Your task to perform on an android device: set the timer Image 0: 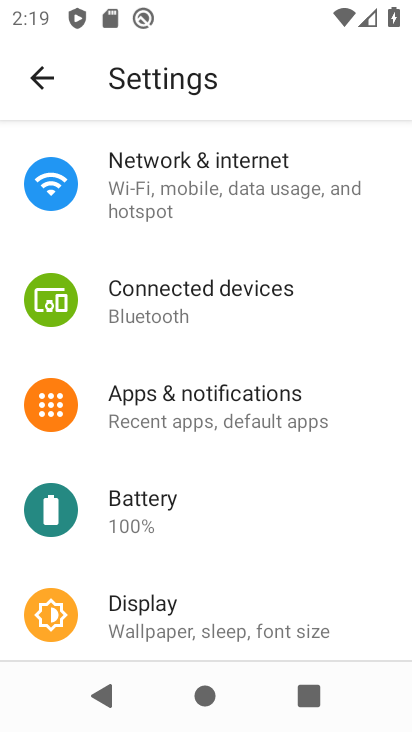
Step 0: press back button
Your task to perform on an android device: set the timer Image 1: 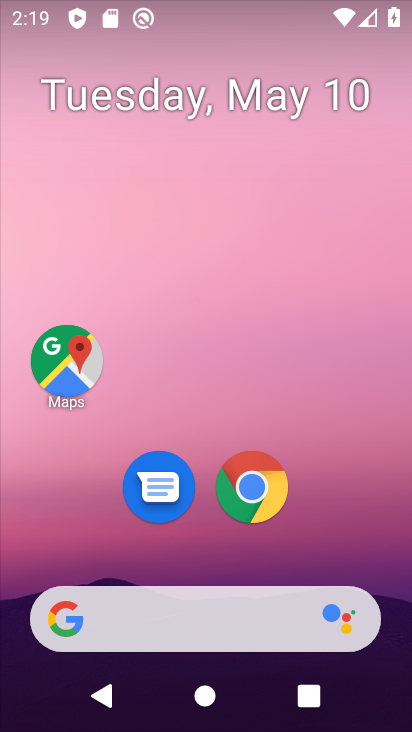
Step 1: drag from (175, 575) to (252, 131)
Your task to perform on an android device: set the timer Image 2: 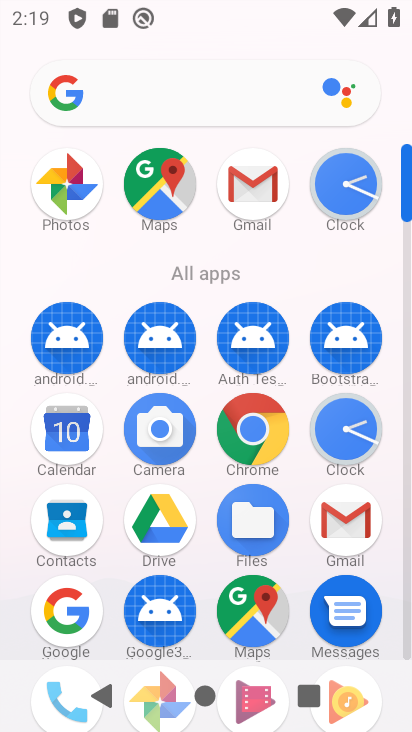
Step 2: click (348, 440)
Your task to perform on an android device: set the timer Image 3: 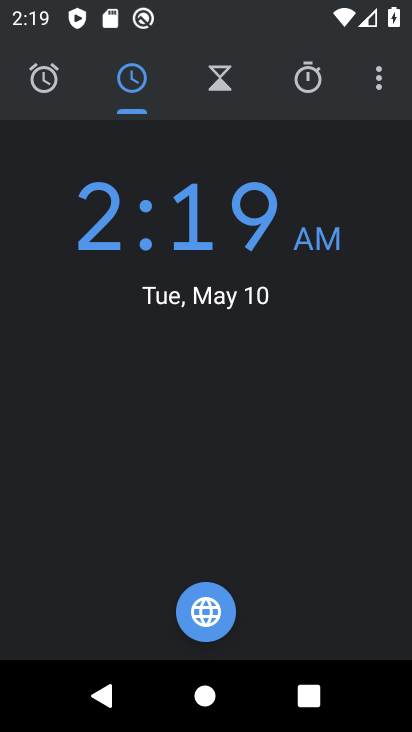
Step 3: click (232, 90)
Your task to perform on an android device: set the timer Image 4: 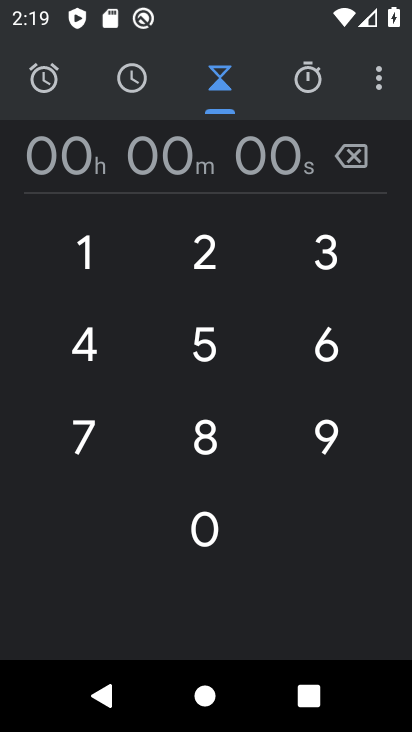
Step 4: click (202, 253)
Your task to perform on an android device: set the timer Image 5: 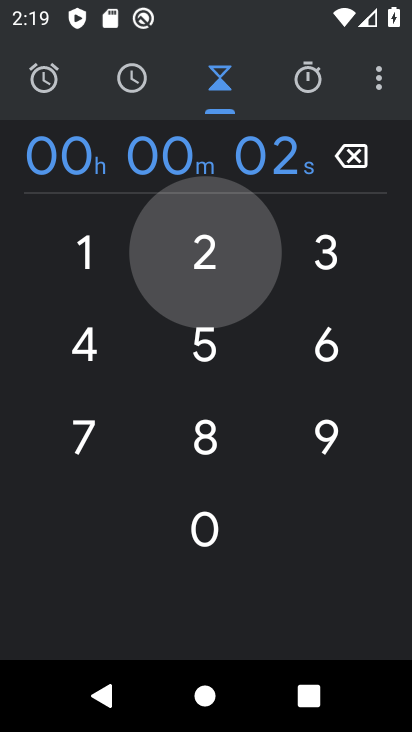
Step 5: click (203, 363)
Your task to perform on an android device: set the timer Image 6: 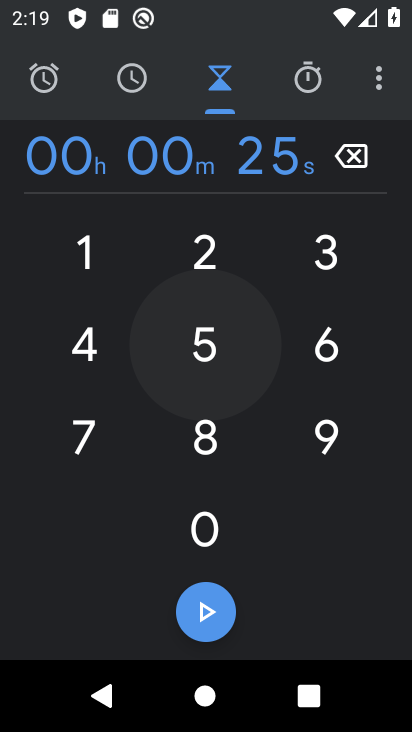
Step 6: click (199, 255)
Your task to perform on an android device: set the timer Image 7: 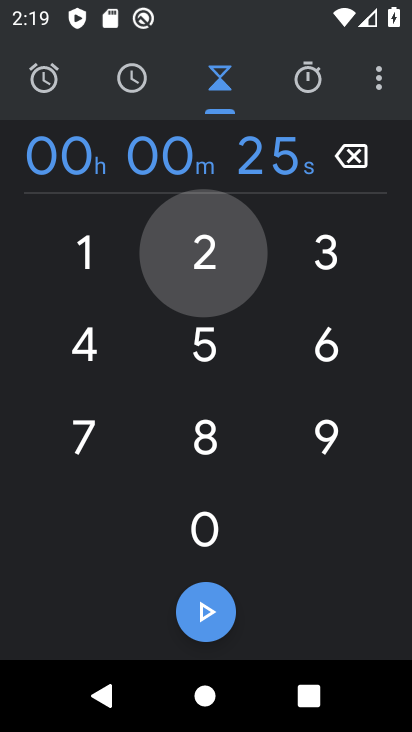
Step 7: click (202, 349)
Your task to perform on an android device: set the timer Image 8: 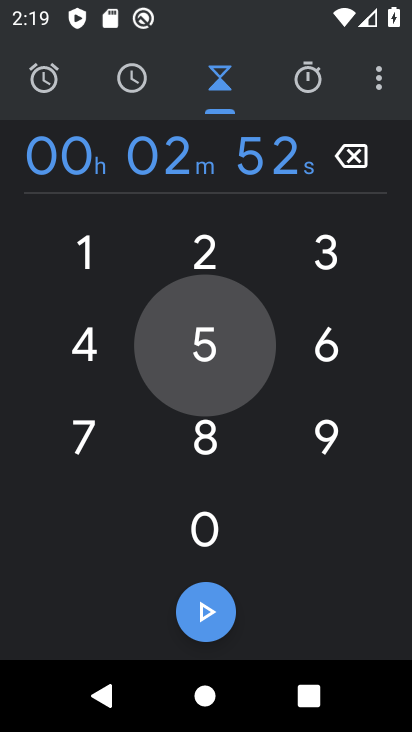
Step 8: click (200, 247)
Your task to perform on an android device: set the timer Image 9: 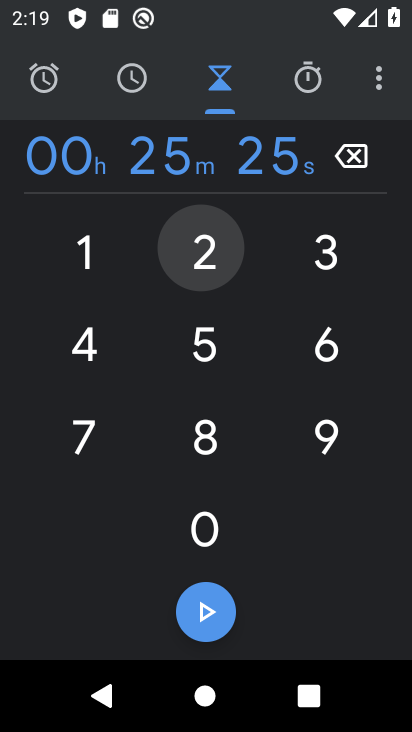
Step 9: click (196, 336)
Your task to perform on an android device: set the timer Image 10: 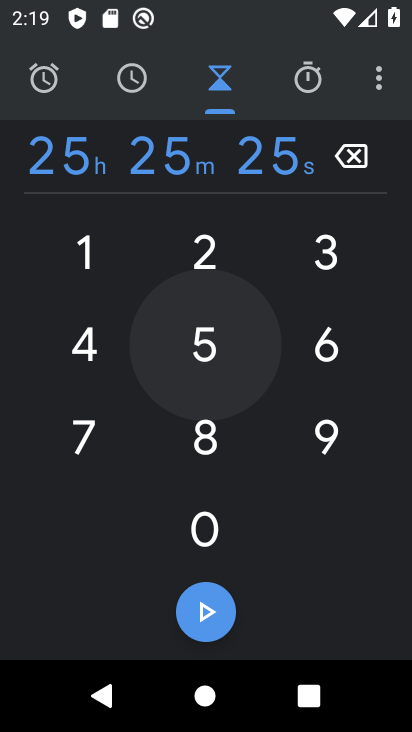
Step 10: click (203, 257)
Your task to perform on an android device: set the timer Image 11: 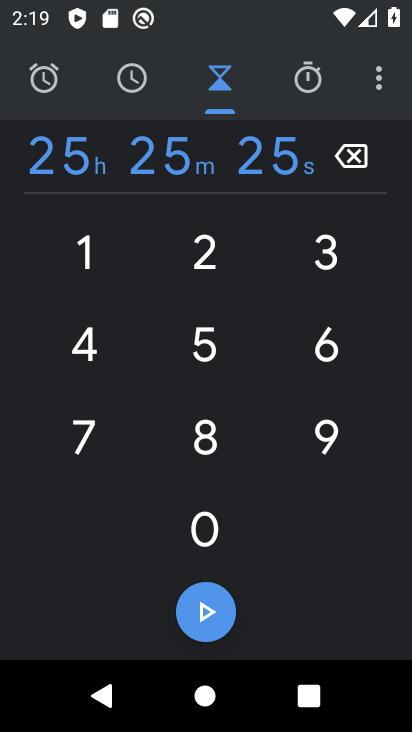
Step 11: click (189, 618)
Your task to perform on an android device: set the timer Image 12: 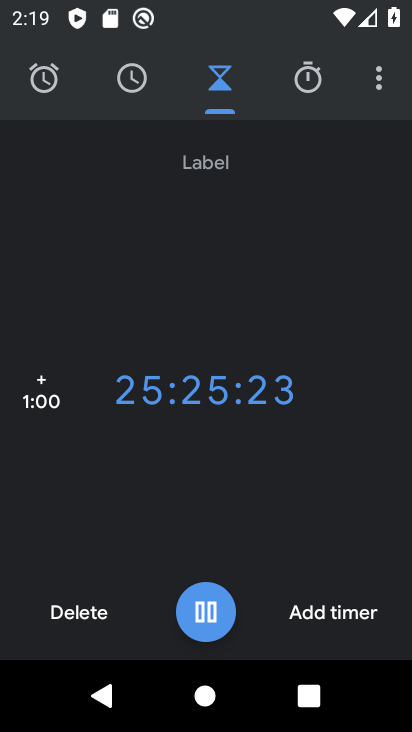
Step 12: task complete